Your task to perform on an android device: install app "File Manager" Image 0: 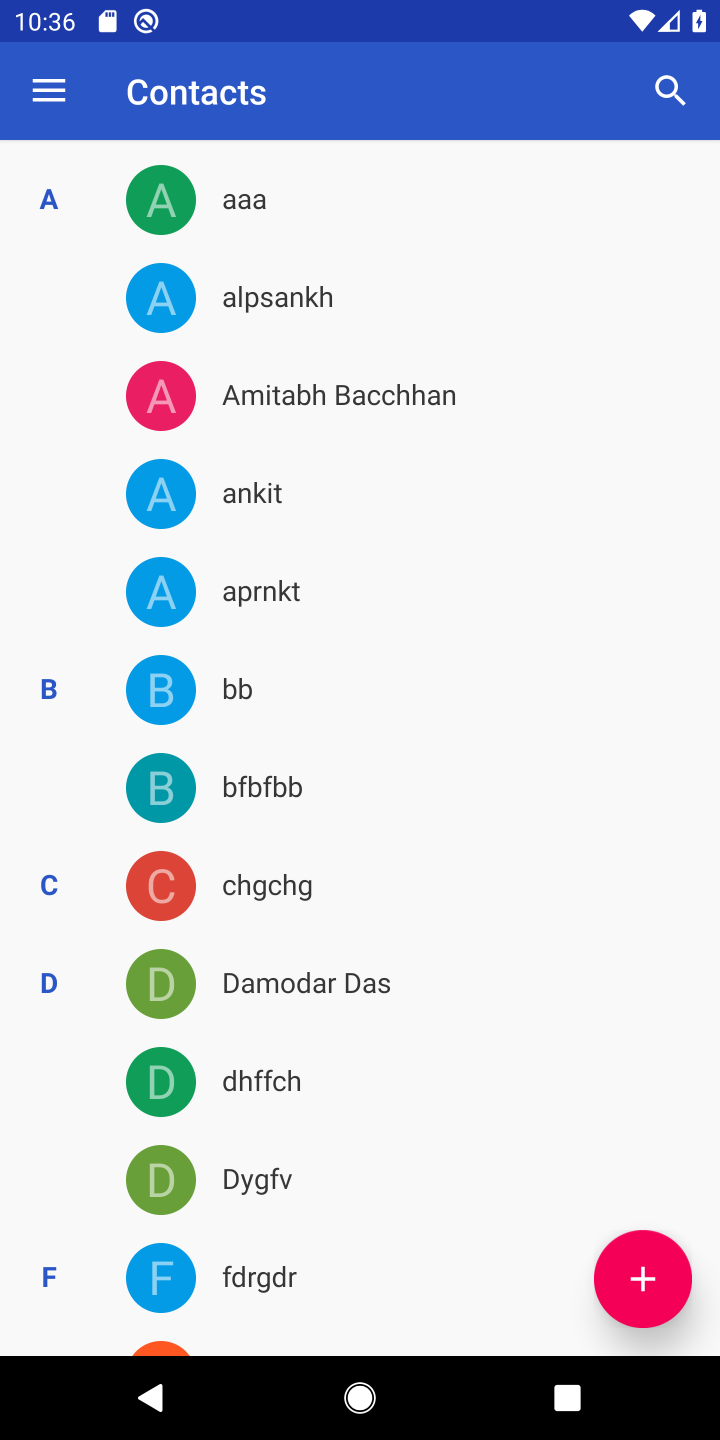
Step 0: press home button
Your task to perform on an android device: install app "File Manager" Image 1: 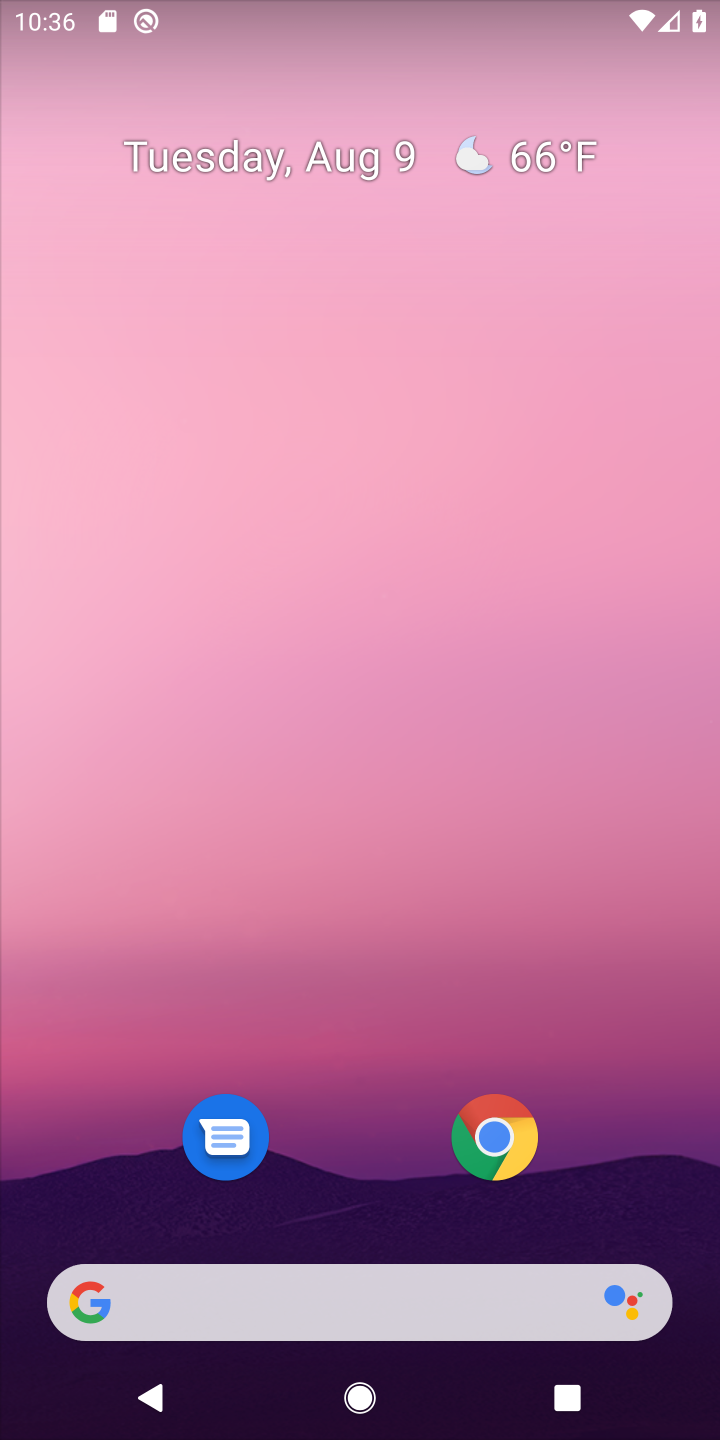
Step 1: drag from (369, 1125) to (435, 300)
Your task to perform on an android device: install app "File Manager" Image 2: 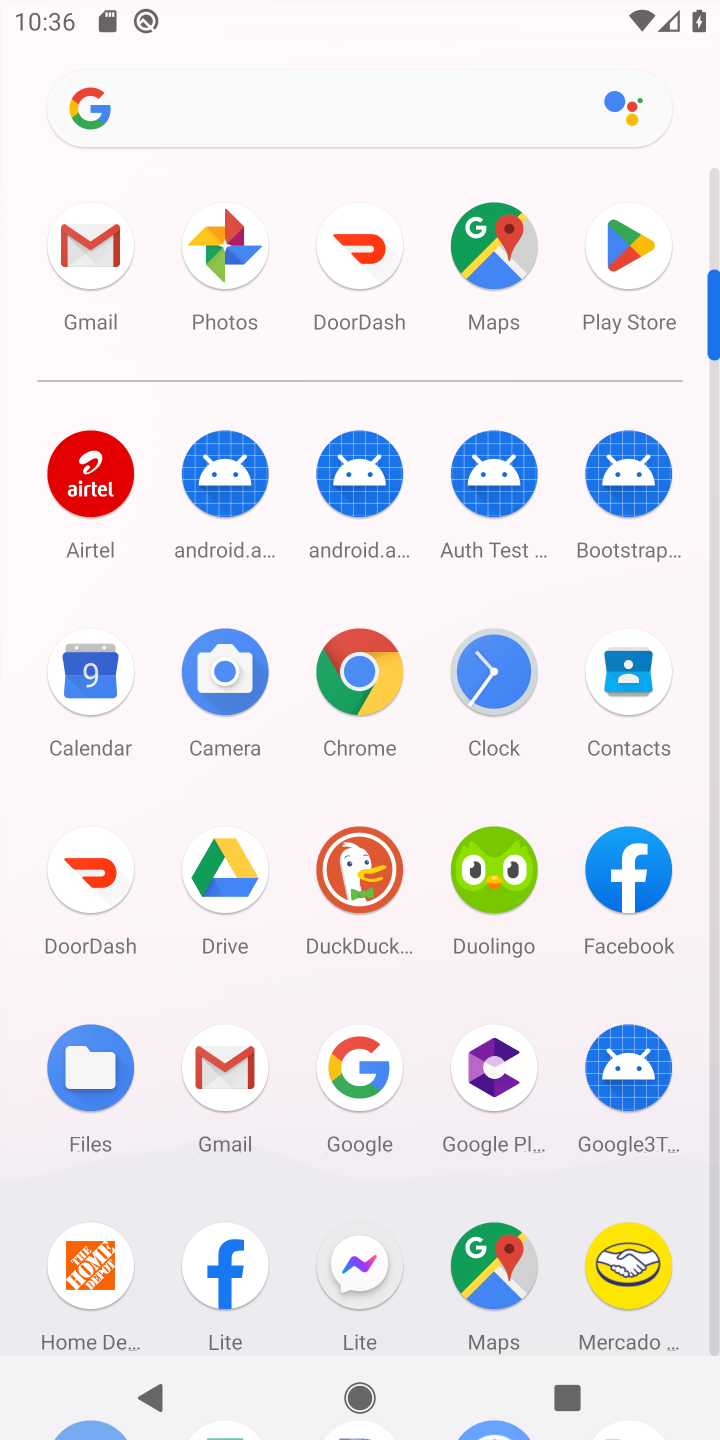
Step 2: click (636, 266)
Your task to perform on an android device: install app "File Manager" Image 3: 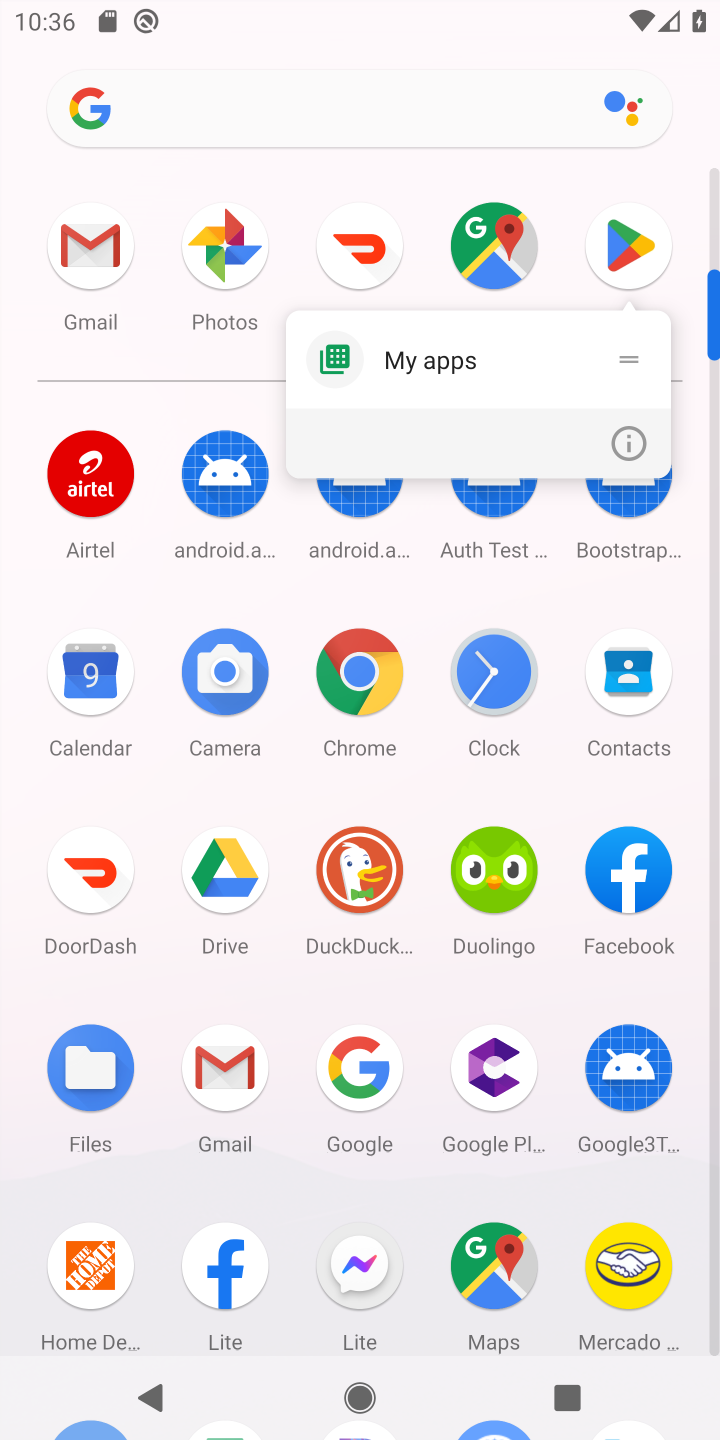
Step 3: click (643, 240)
Your task to perform on an android device: install app "File Manager" Image 4: 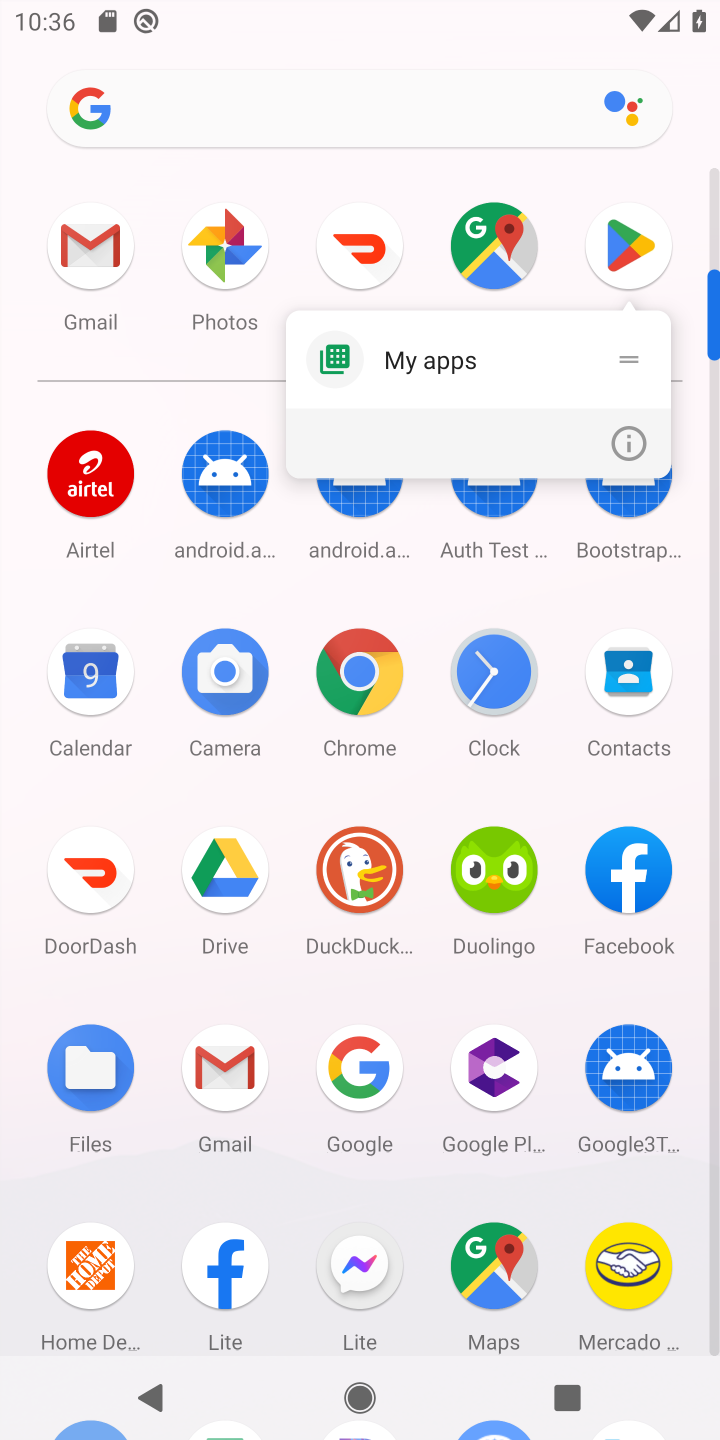
Step 4: click (643, 240)
Your task to perform on an android device: install app "File Manager" Image 5: 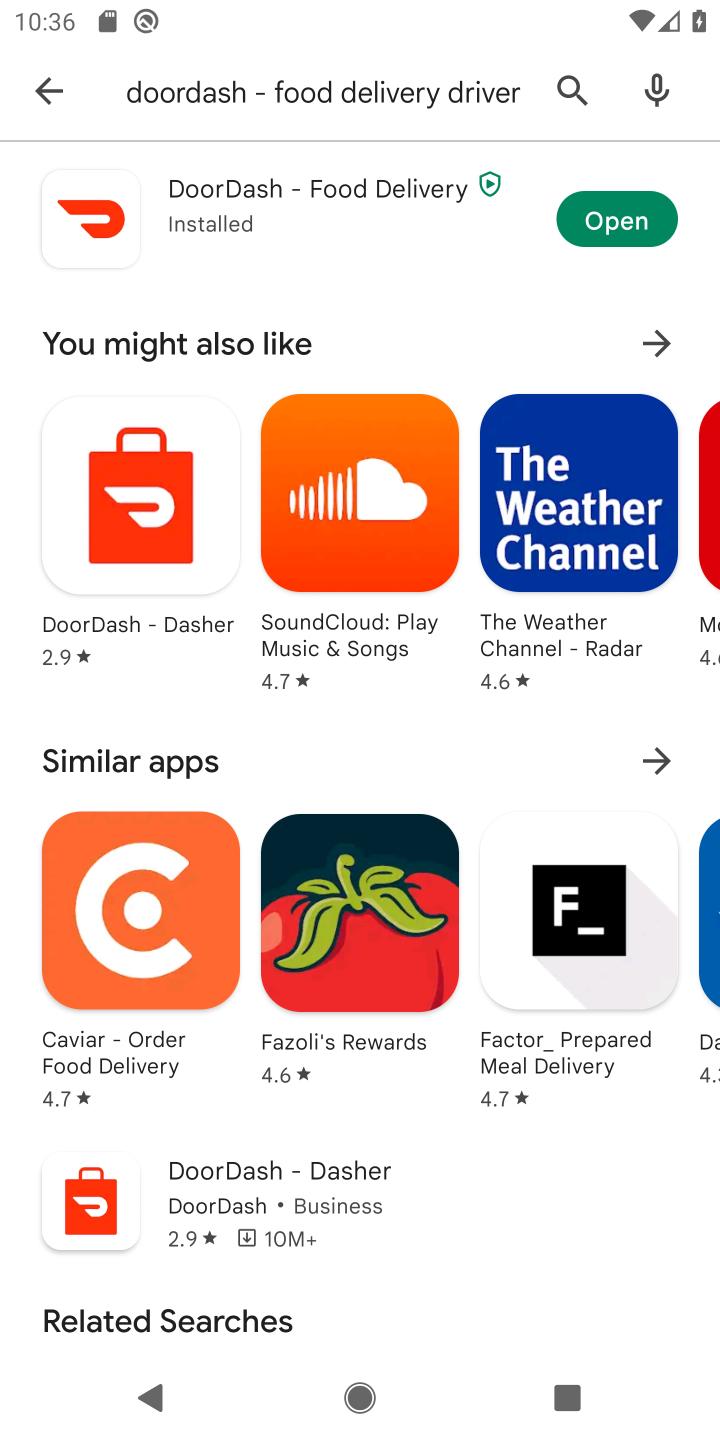
Step 5: click (577, 84)
Your task to perform on an android device: install app "File Manager" Image 6: 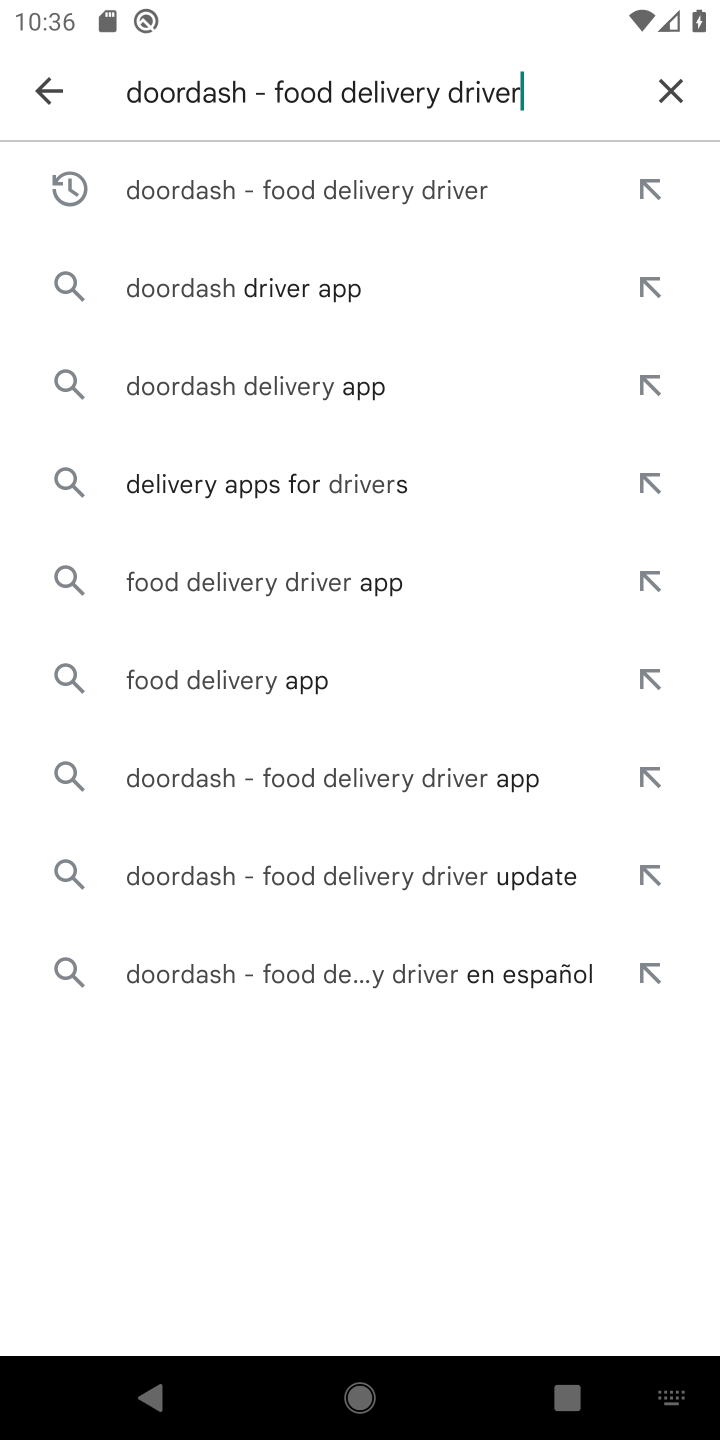
Step 6: click (658, 92)
Your task to perform on an android device: install app "File Manager" Image 7: 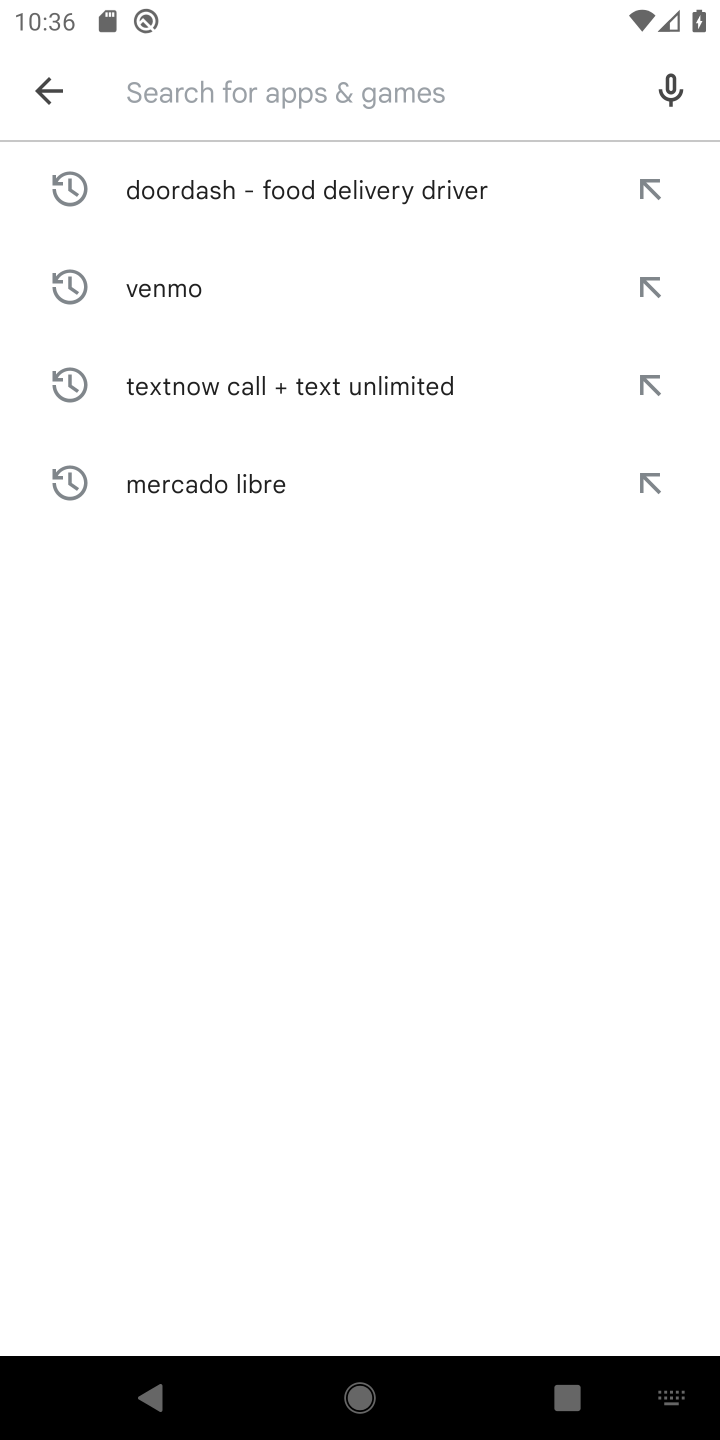
Step 7: type "File Manager"
Your task to perform on an android device: install app "File Manager" Image 8: 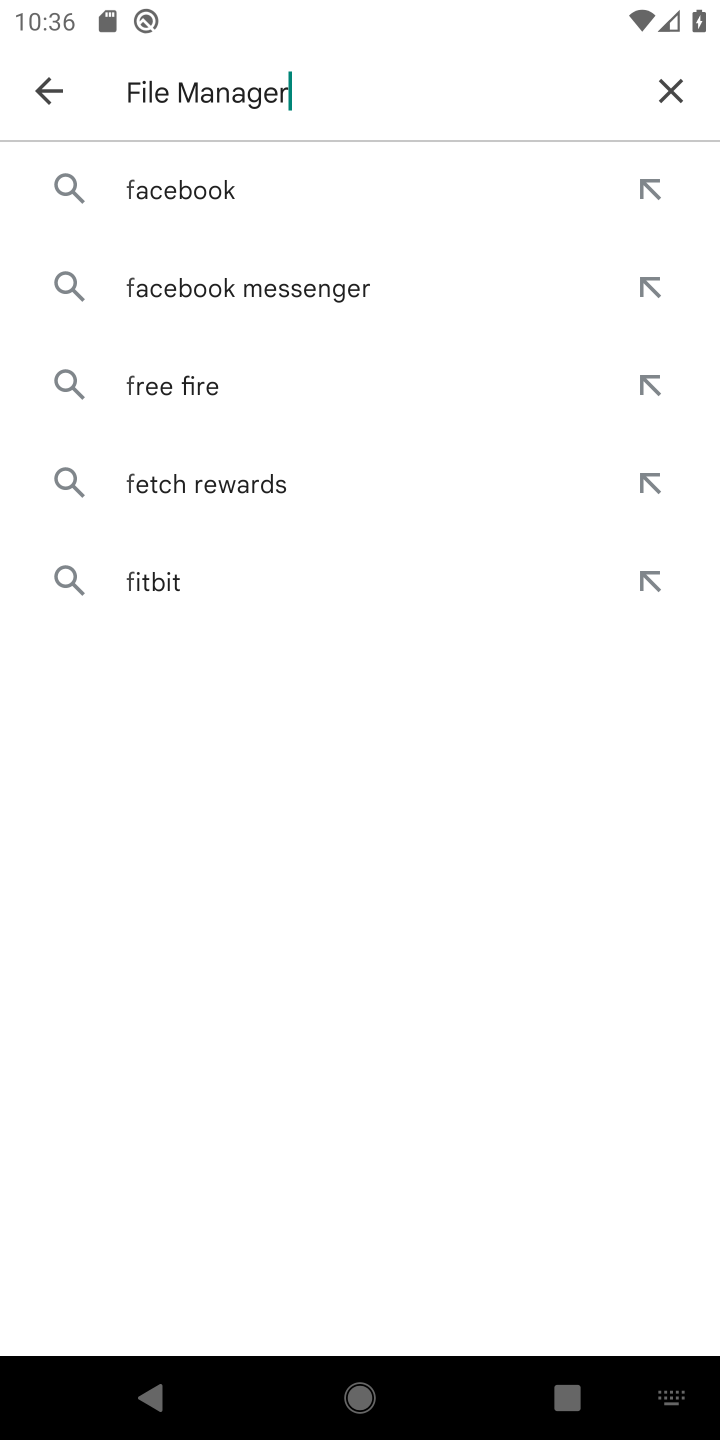
Step 8: type ""
Your task to perform on an android device: install app "File Manager" Image 9: 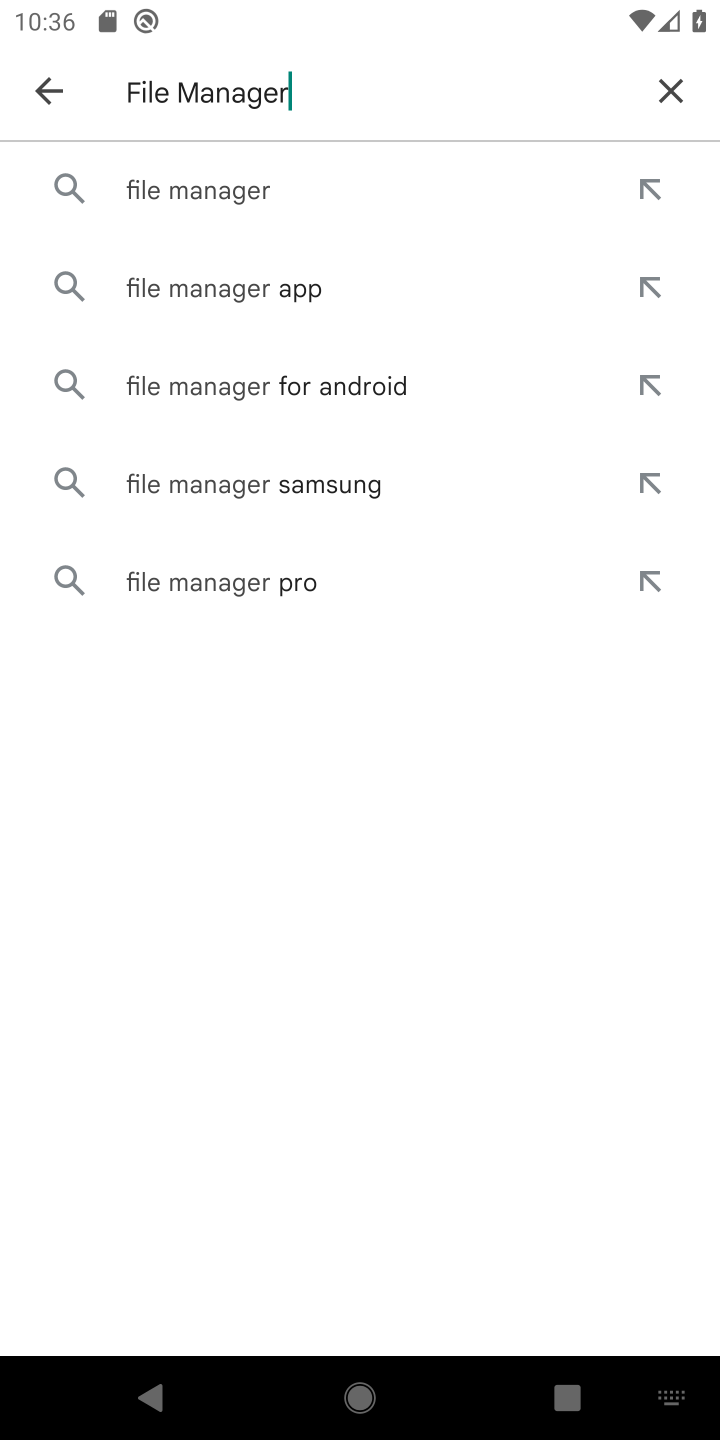
Step 9: click (241, 195)
Your task to perform on an android device: install app "File Manager" Image 10: 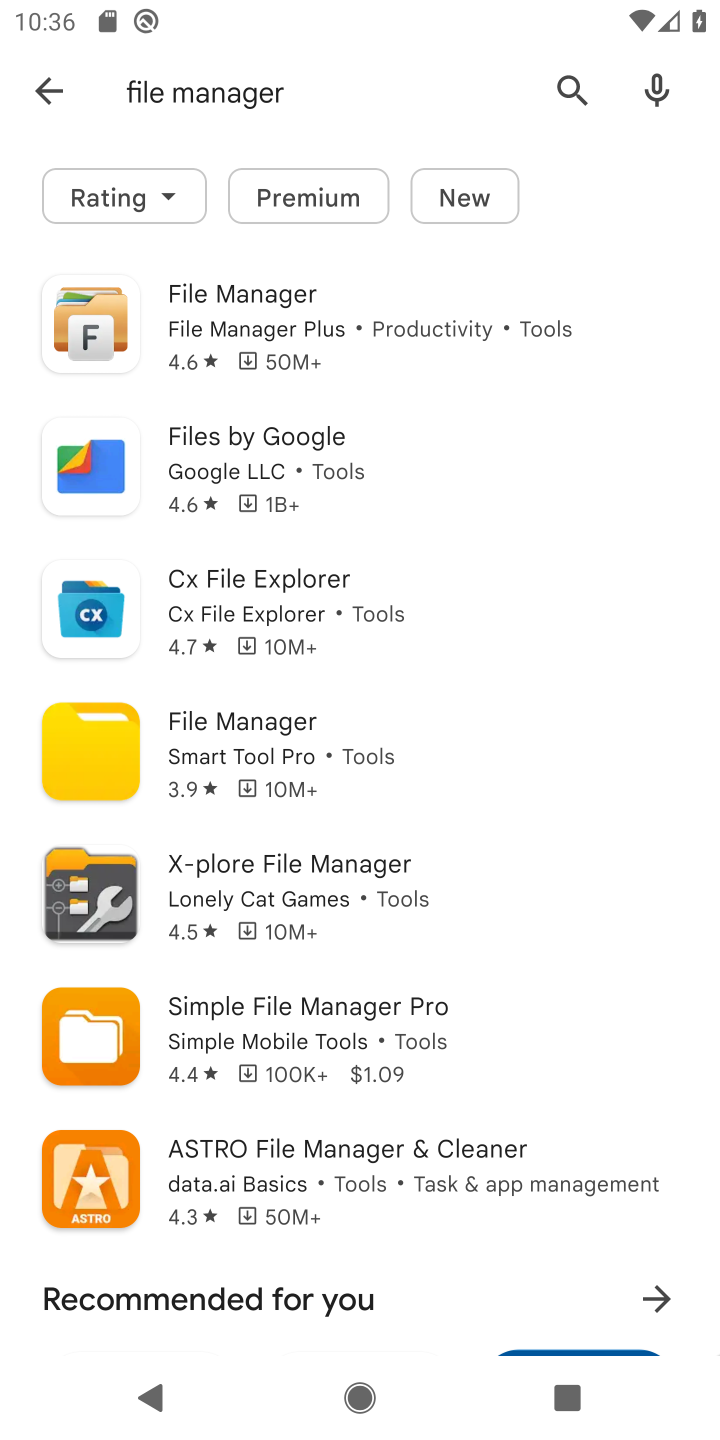
Step 10: click (356, 348)
Your task to perform on an android device: install app "File Manager" Image 11: 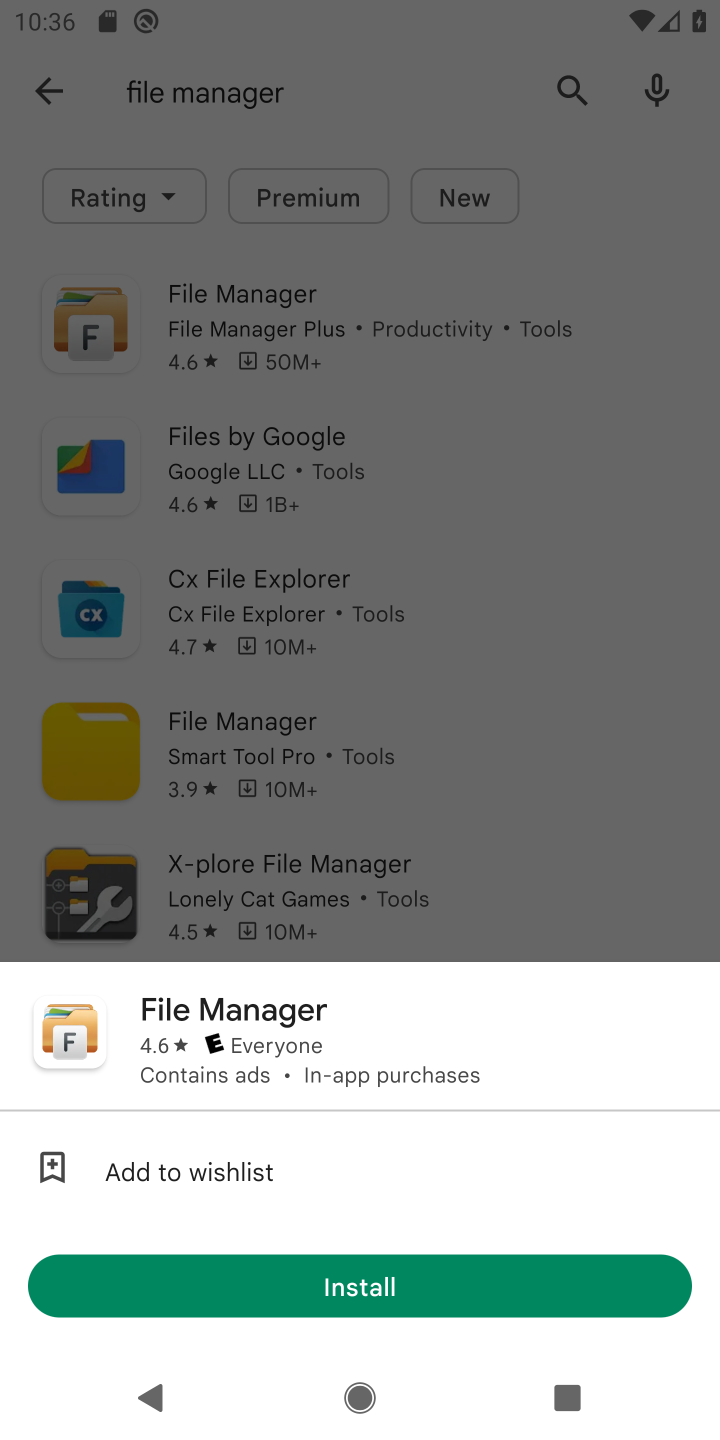
Step 11: click (351, 1302)
Your task to perform on an android device: install app "File Manager" Image 12: 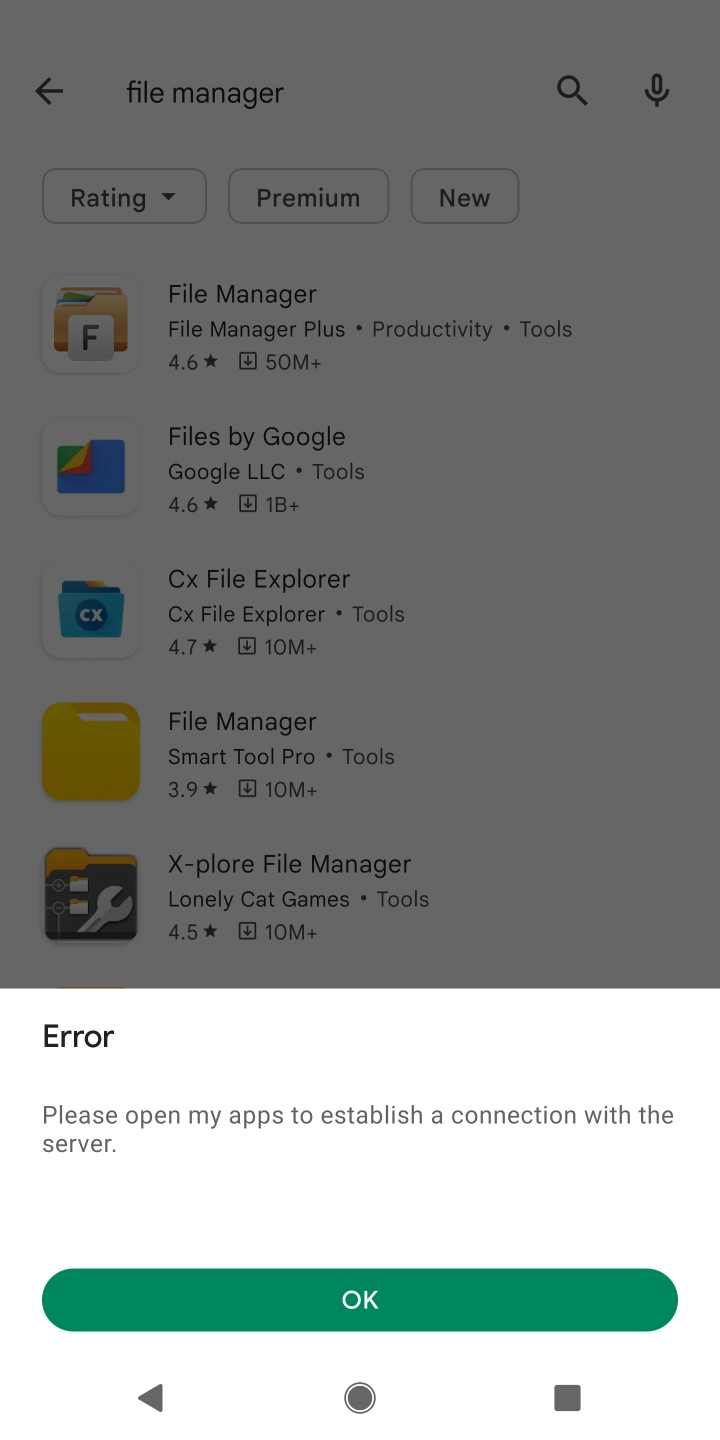
Step 12: task complete